Your task to perform on an android device: turn on sleep mode Image 0: 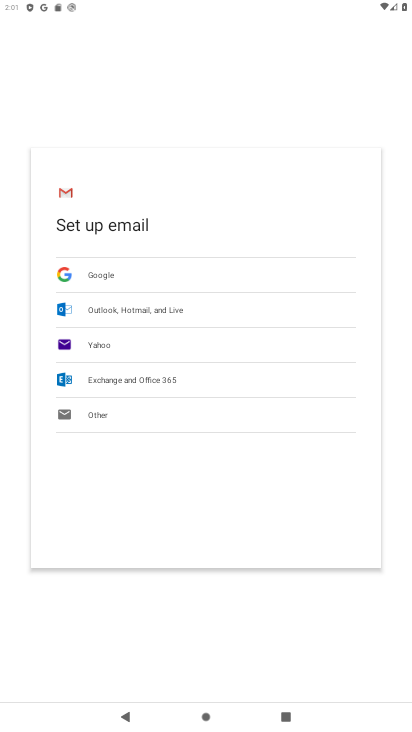
Step 0: press home button
Your task to perform on an android device: turn on sleep mode Image 1: 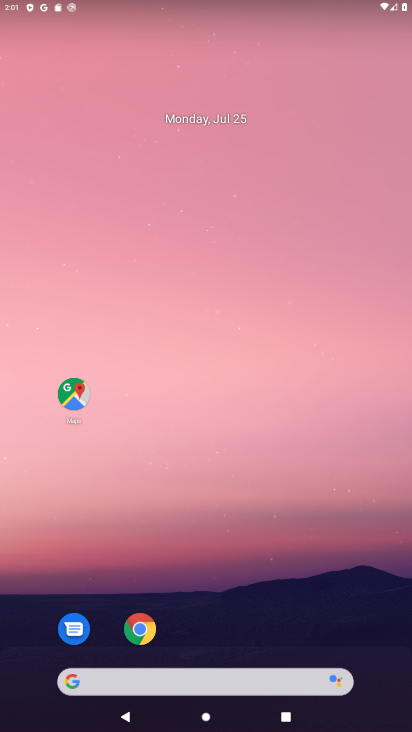
Step 1: drag from (240, 626) to (141, 79)
Your task to perform on an android device: turn on sleep mode Image 2: 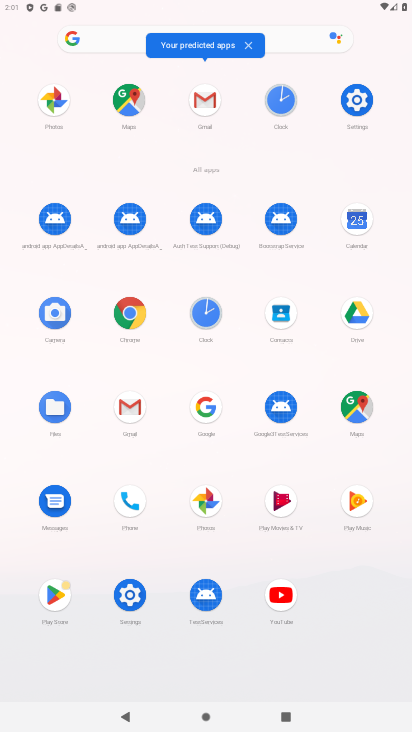
Step 2: click (133, 597)
Your task to perform on an android device: turn on sleep mode Image 3: 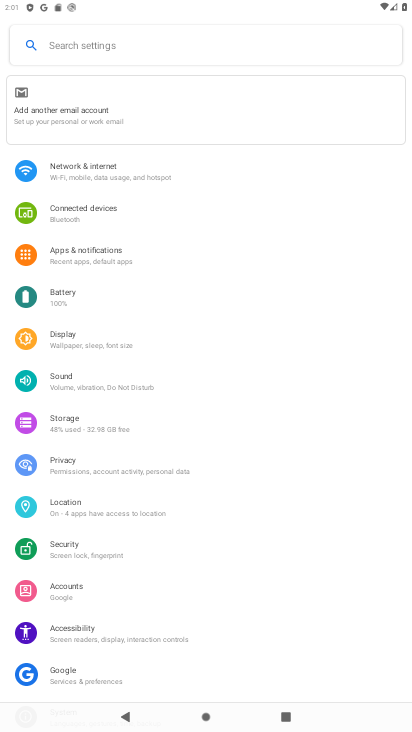
Step 3: click (68, 342)
Your task to perform on an android device: turn on sleep mode Image 4: 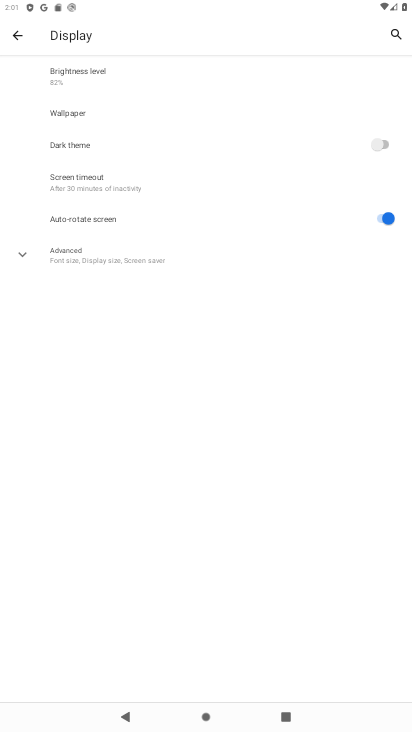
Step 4: task complete